Your task to perform on an android device: turn on wifi Image 0: 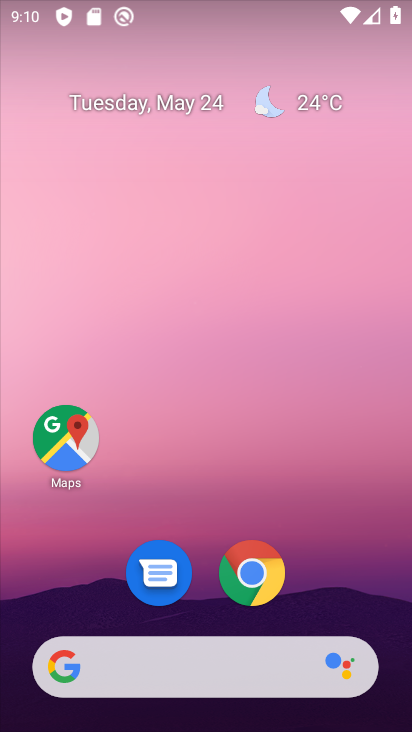
Step 0: drag from (372, 621) to (374, 162)
Your task to perform on an android device: turn on wifi Image 1: 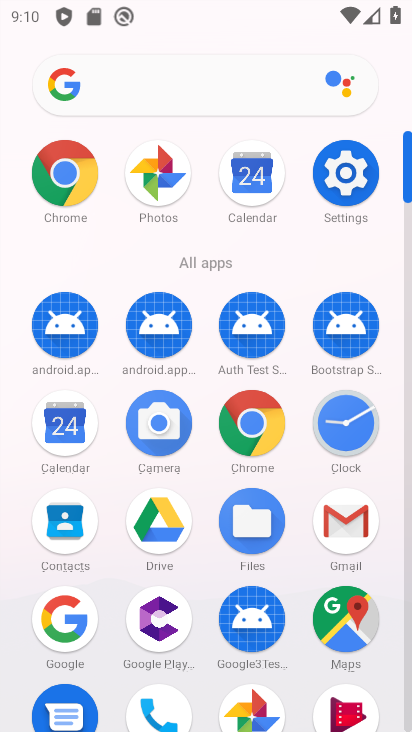
Step 1: click (407, 706)
Your task to perform on an android device: turn on wifi Image 2: 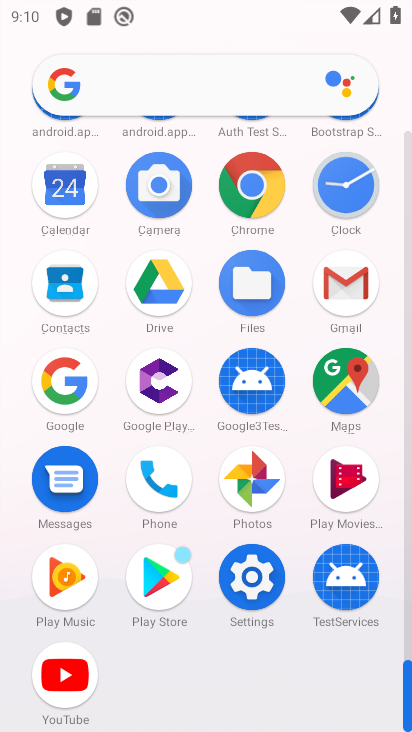
Step 2: click (249, 574)
Your task to perform on an android device: turn on wifi Image 3: 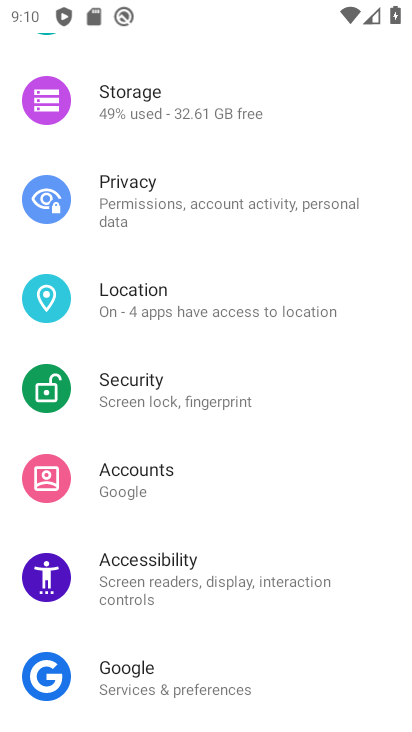
Step 3: drag from (361, 107) to (361, 483)
Your task to perform on an android device: turn on wifi Image 4: 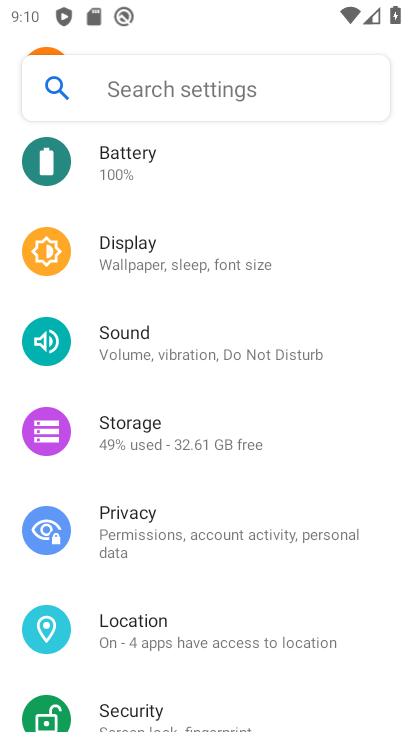
Step 4: drag from (331, 189) to (352, 574)
Your task to perform on an android device: turn on wifi Image 5: 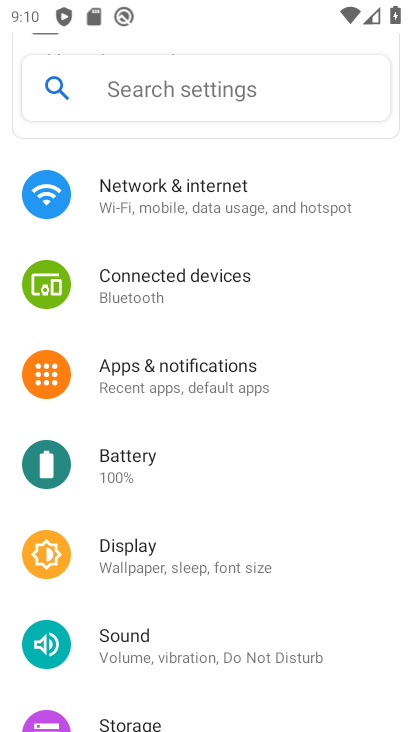
Step 5: click (128, 185)
Your task to perform on an android device: turn on wifi Image 6: 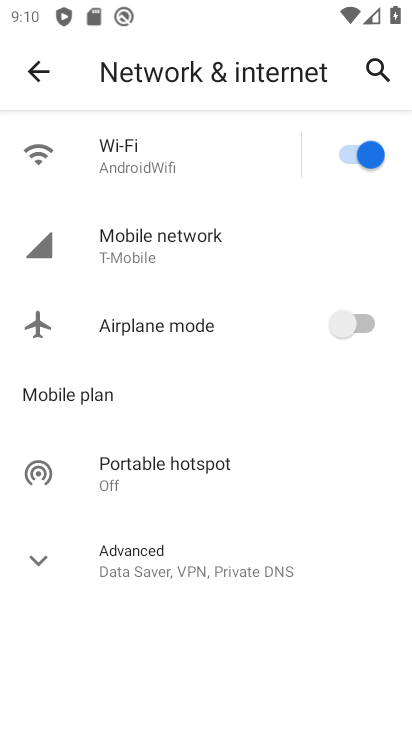
Step 6: task complete